Your task to perform on an android device: open a bookmark in the chrome app Image 0: 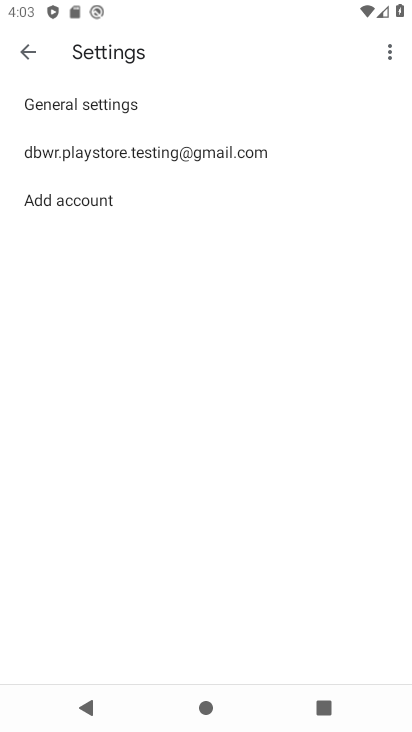
Step 0: press home button
Your task to perform on an android device: open a bookmark in the chrome app Image 1: 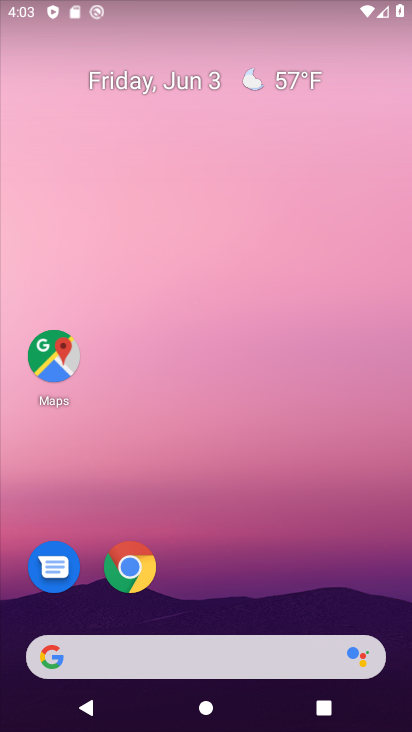
Step 1: click (146, 573)
Your task to perform on an android device: open a bookmark in the chrome app Image 2: 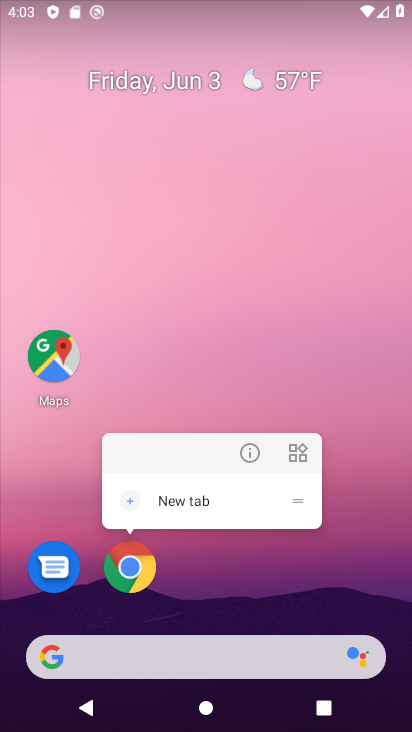
Step 2: click (149, 578)
Your task to perform on an android device: open a bookmark in the chrome app Image 3: 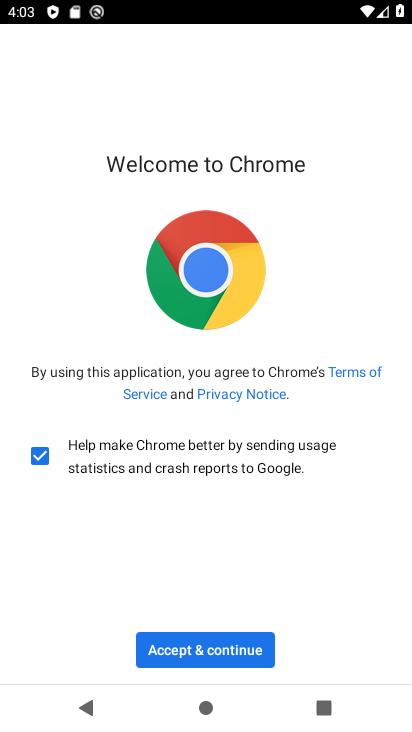
Step 3: click (263, 646)
Your task to perform on an android device: open a bookmark in the chrome app Image 4: 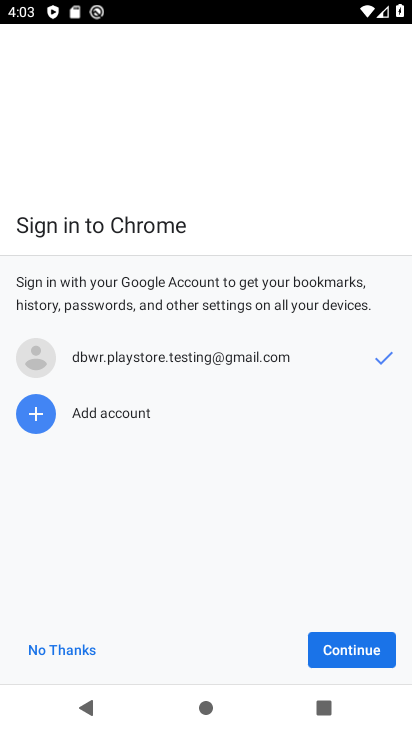
Step 4: click (346, 648)
Your task to perform on an android device: open a bookmark in the chrome app Image 5: 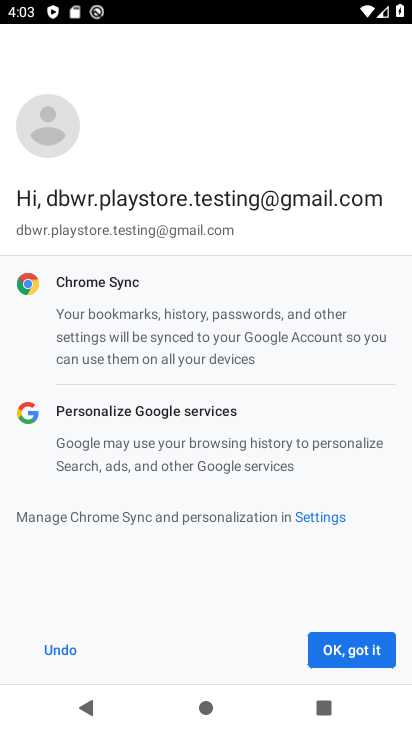
Step 5: click (346, 648)
Your task to perform on an android device: open a bookmark in the chrome app Image 6: 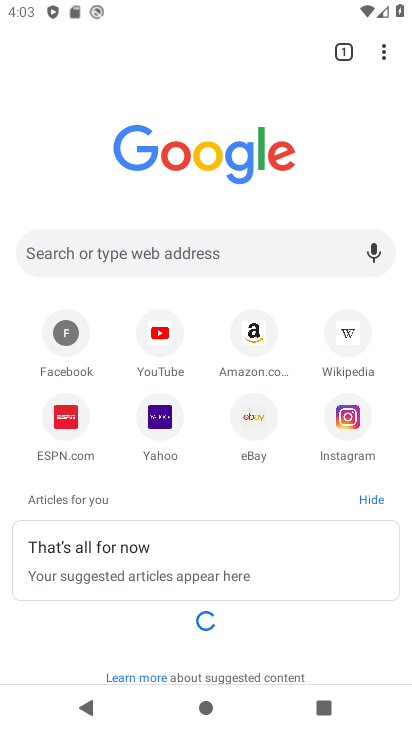
Step 6: click (385, 49)
Your task to perform on an android device: open a bookmark in the chrome app Image 7: 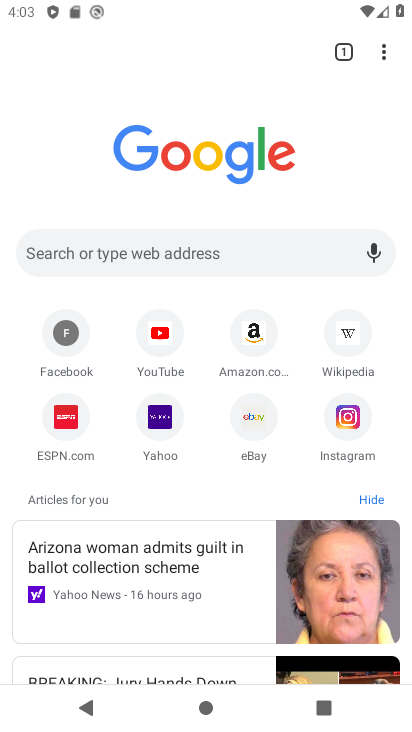
Step 7: click (383, 60)
Your task to perform on an android device: open a bookmark in the chrome app Image 8: 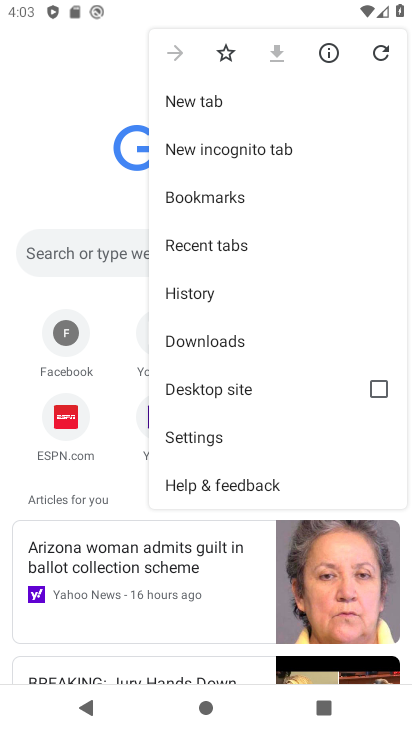
Step 8: click (215, 194)
Your task to perform on an android device: open a bookmark in the chrome app Image 9: 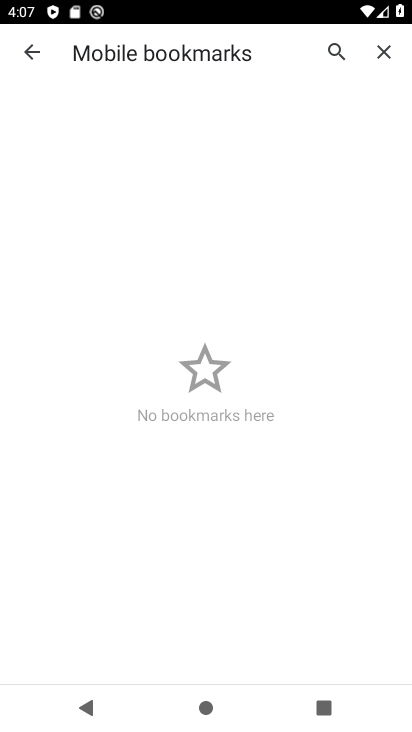
Step 9: task complete